Your task to perform on an android device: install app "Contacts" Image 0: 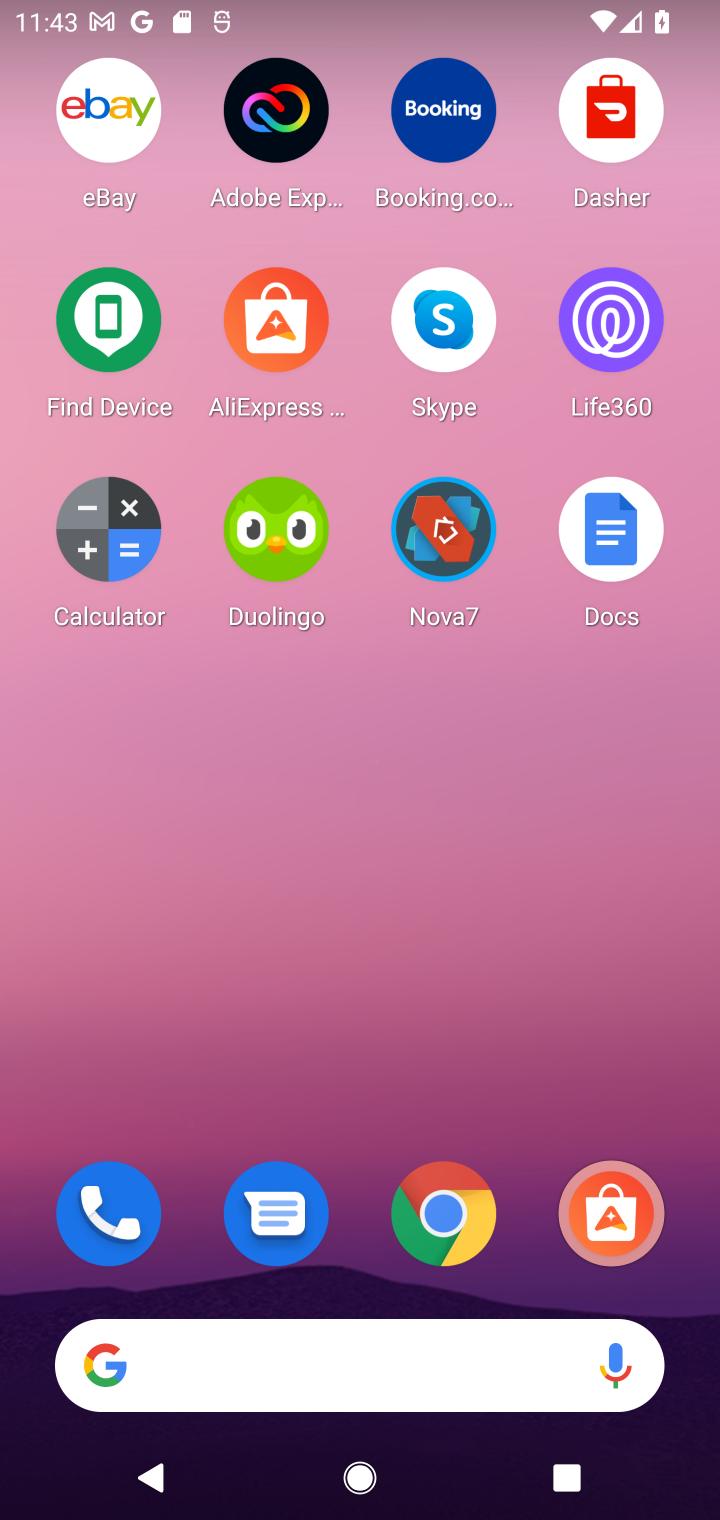
Step 0: drag from (276, 1357) to (438, 202)
Your task to perform on an android device: install app "Contacts" Image 1: 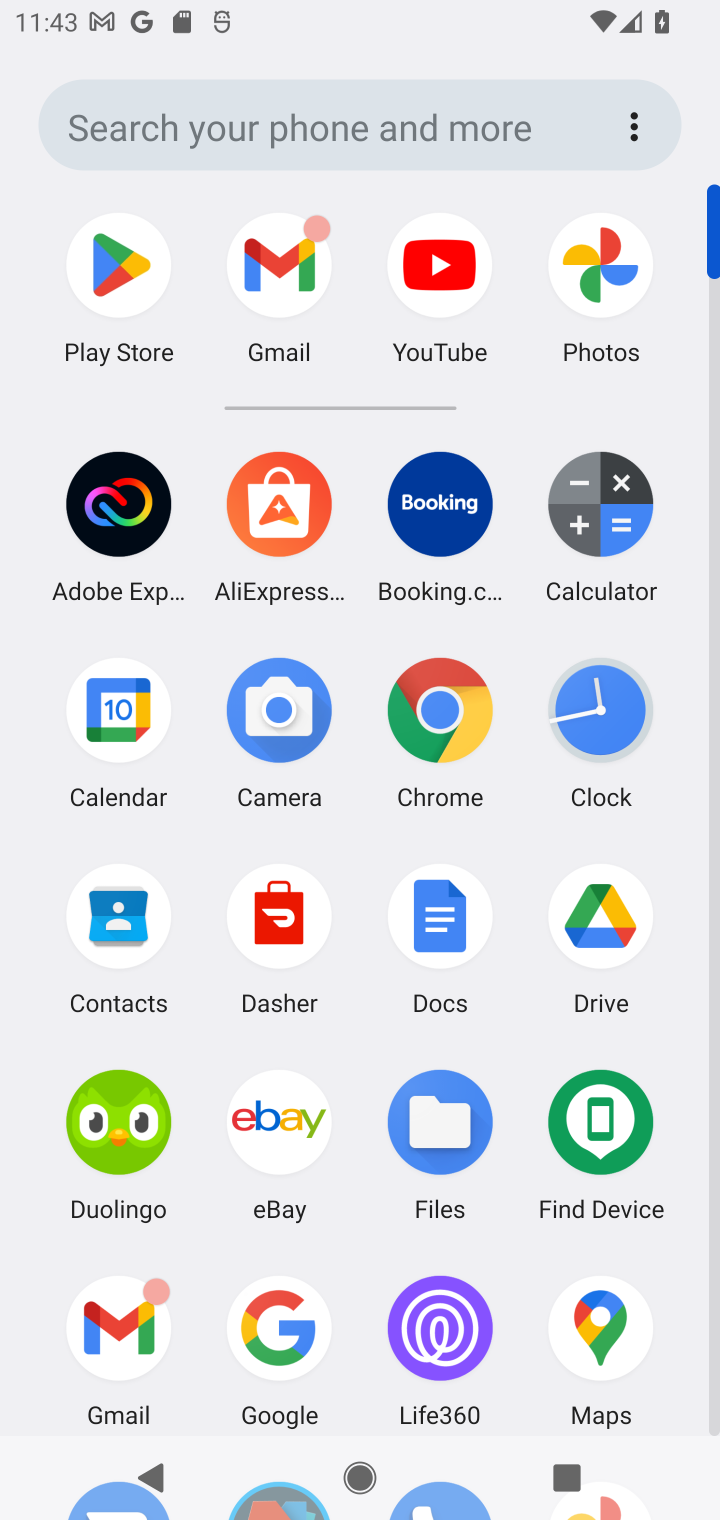
Step 1: drag from (372, 1323) to (358, 404)
Your task to perform on an android device: install app "Contacts" Image 2: 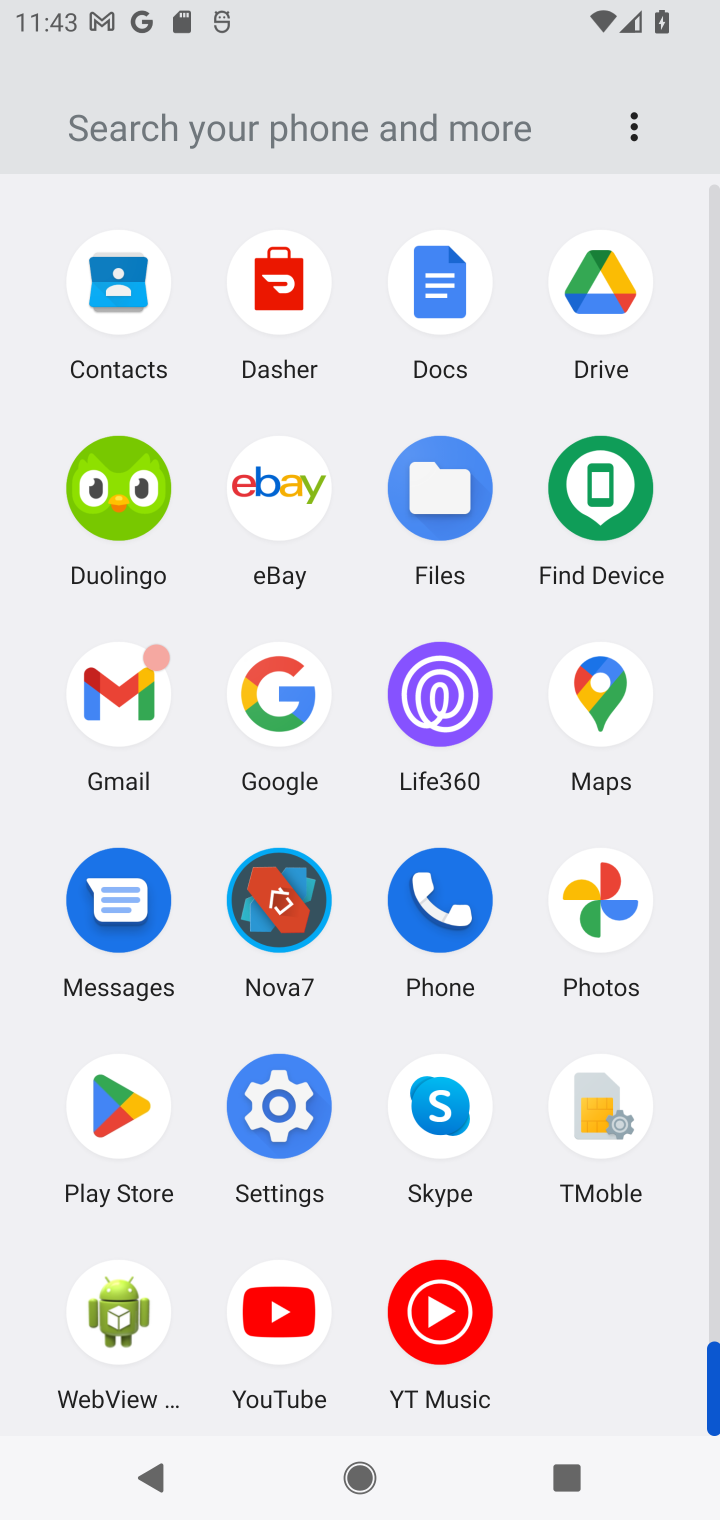
Step 2: click (128, 1113)
Your task to perform on an android device: install app "Contacts" Image 3: 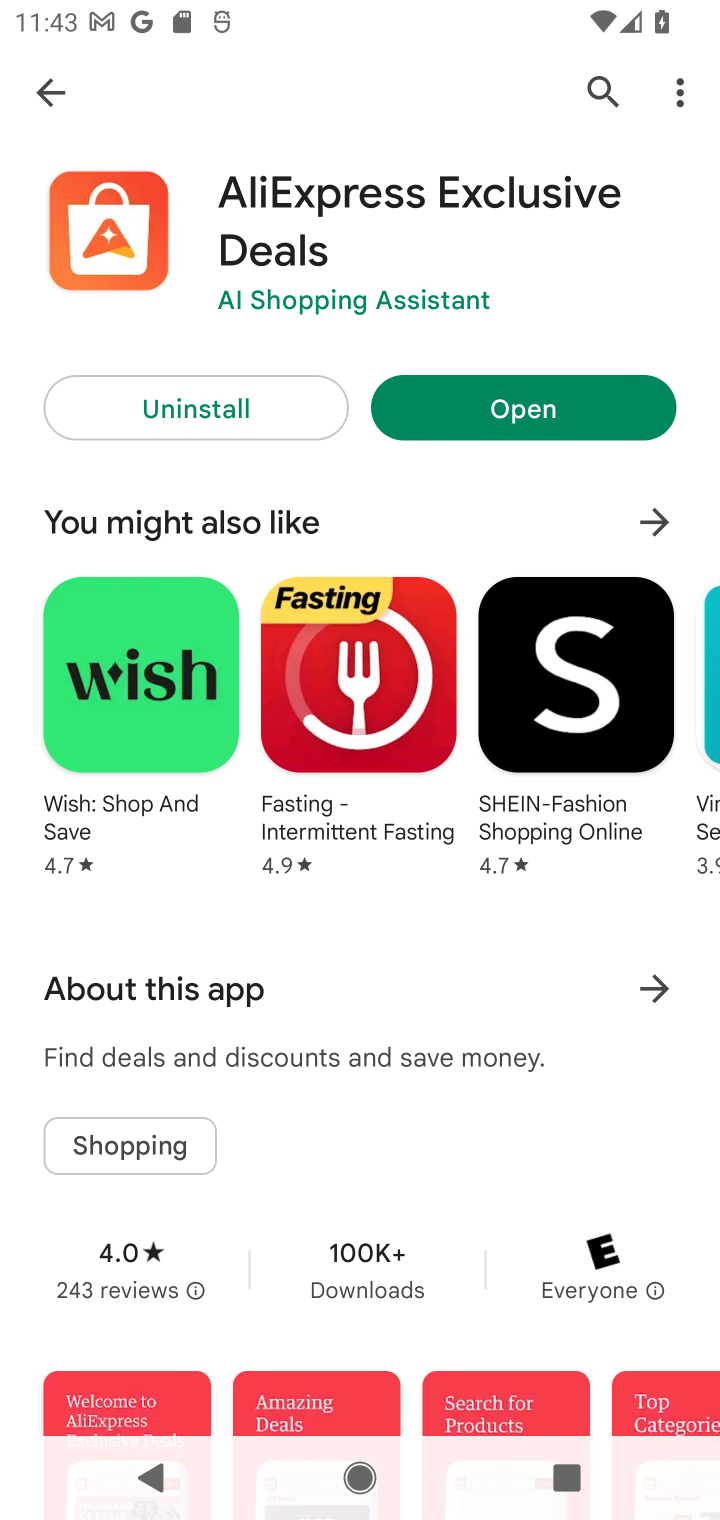
Step 3: press back button
Your task to perform on an android device: install app "Contacts" Image 4: 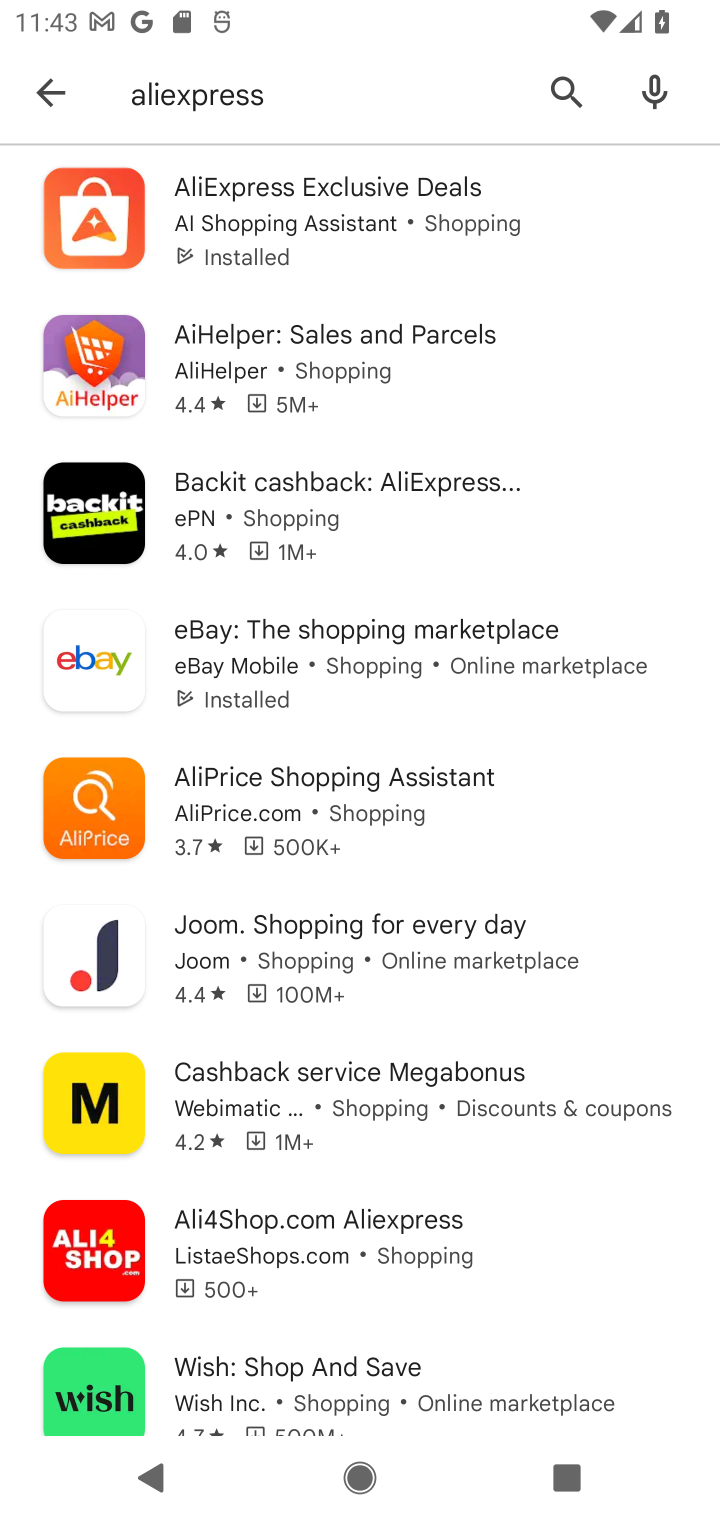
Step 4: press back button
Your task to perform on an android device: install app "Contacts" Image 5: 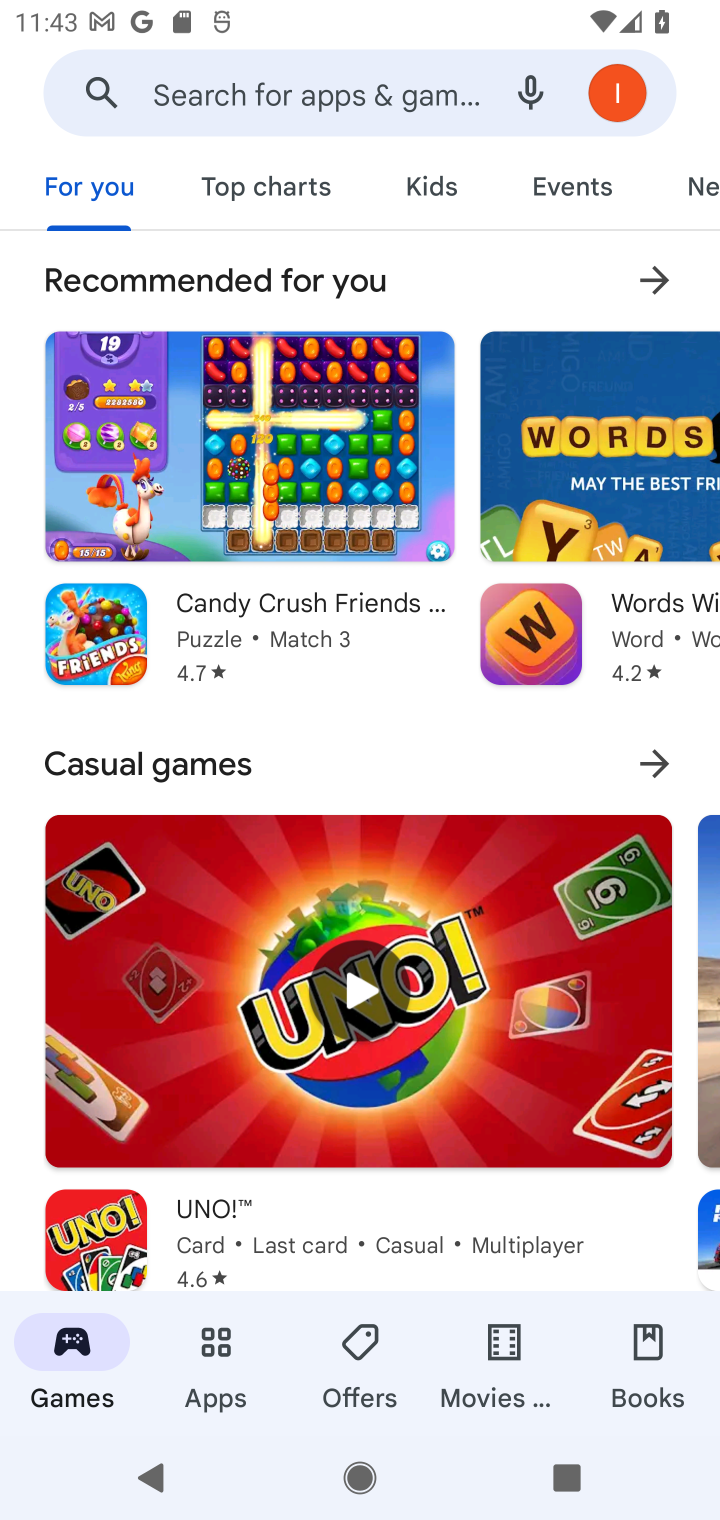
Step 5: click (226, 74)
Your task to perform on an android device: install app "Contacts" Image 6: 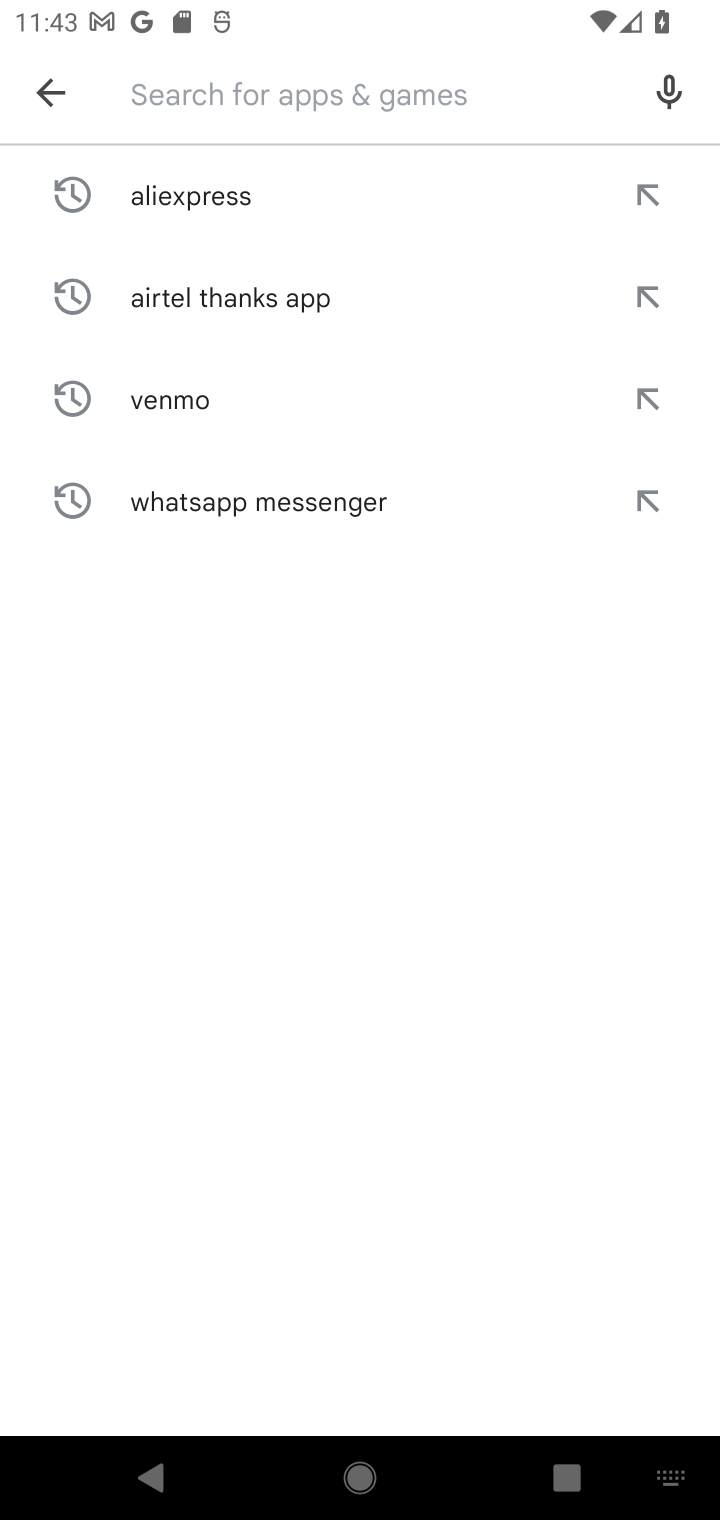
Step 6: type "Contacts"
Your task to perform on an android device: install app "Contacts" Image 7: 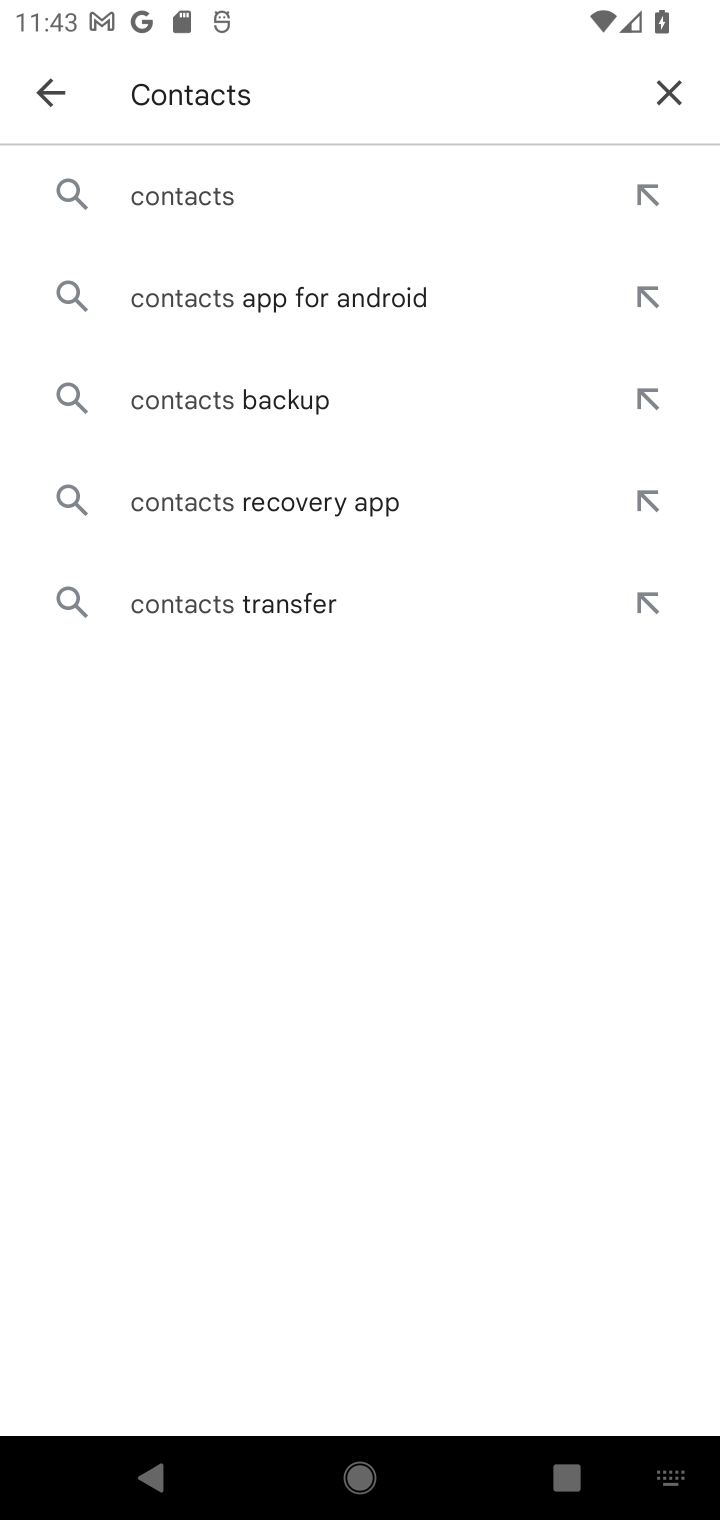
Step 7: click (224, 202)
Your task to perform on an android device: install app "Contacts" Image 8: 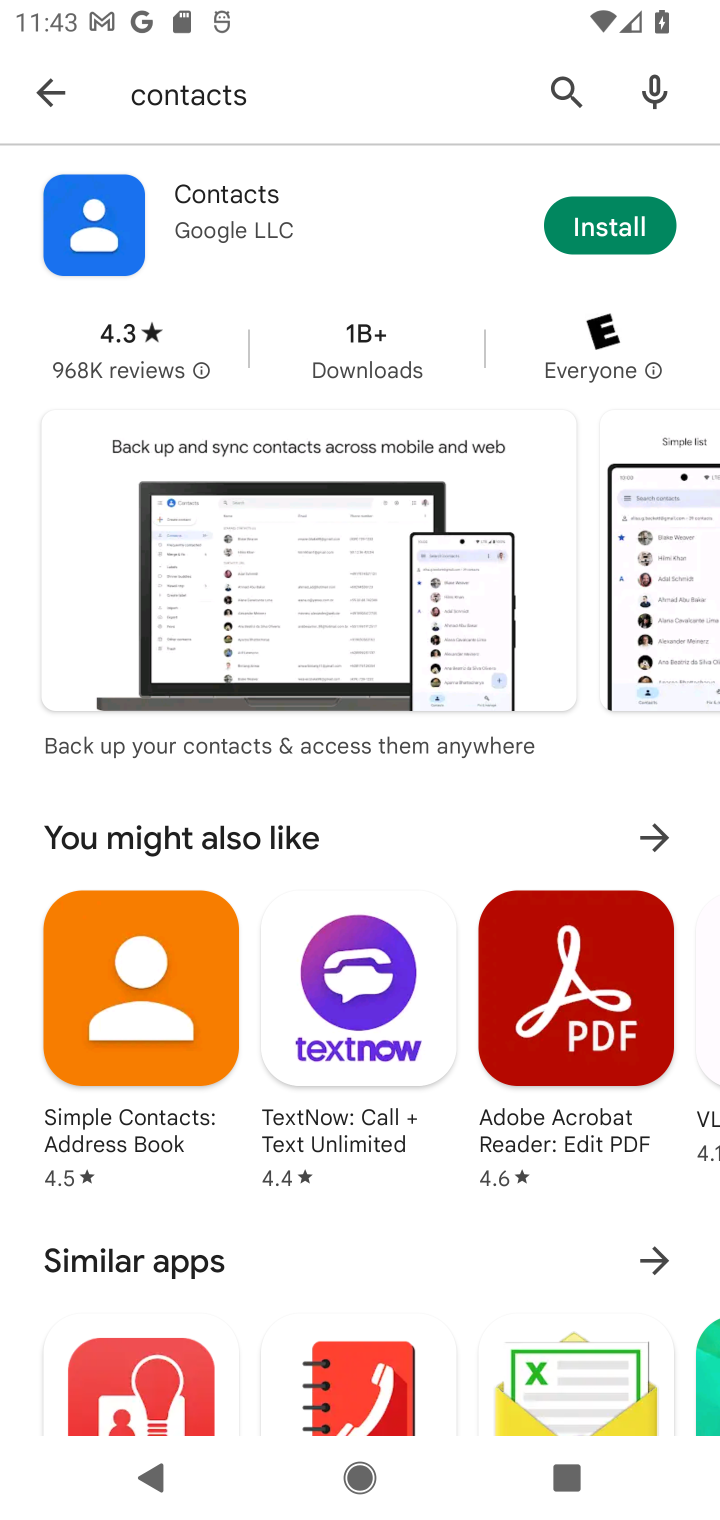
Step 8: click (624, 232)
Your task to perform on an android device: install app "Contacts" Image 9: 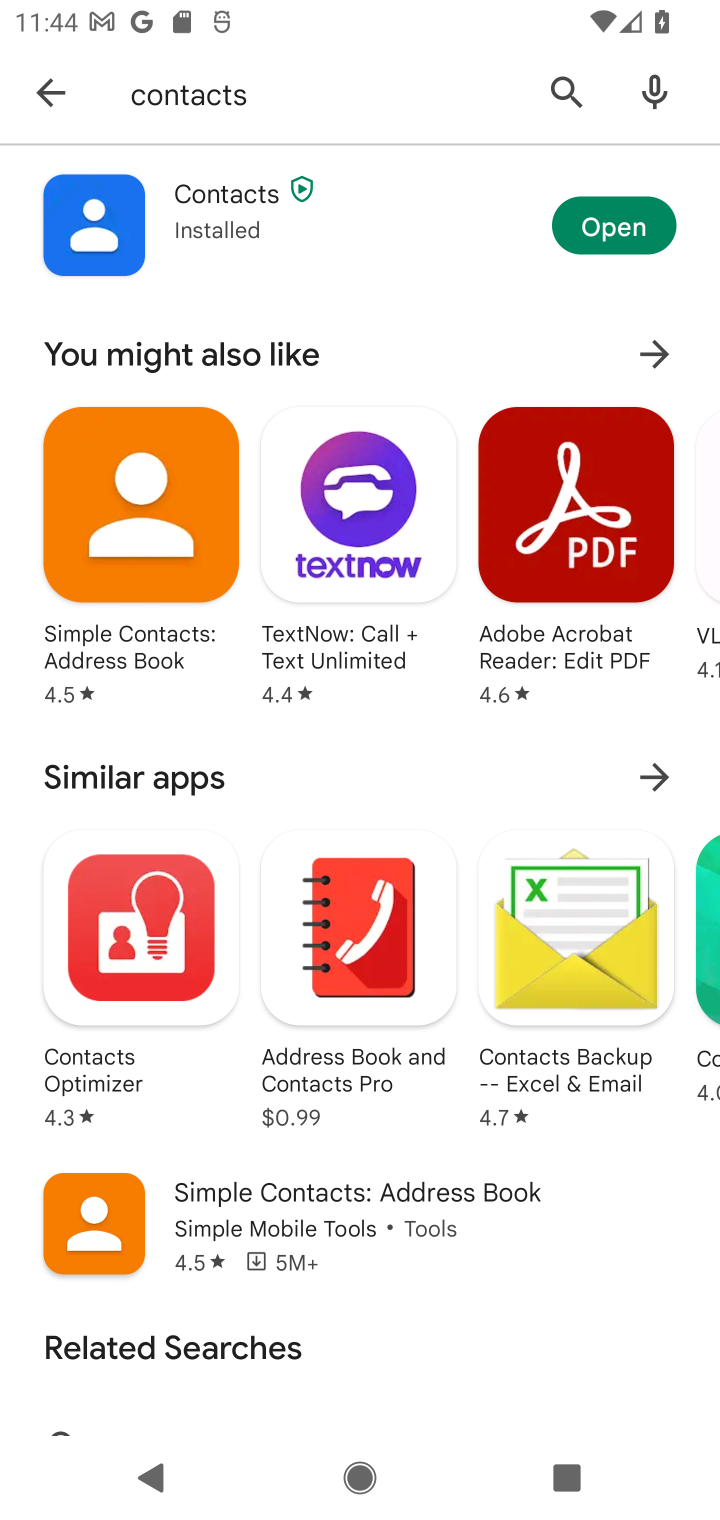
Step 9: task complete